Your task to perform on an android device: Open Maps and search for coffee Image 0: 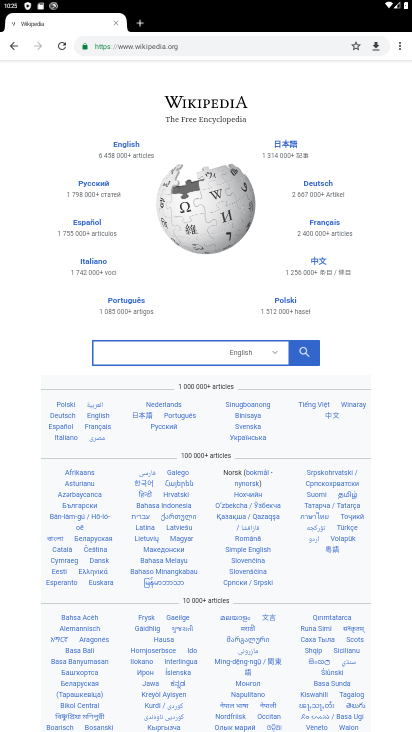
Step 0: press home button
Your task to perform on an android device: Open Maps and search for coffee Image 1: 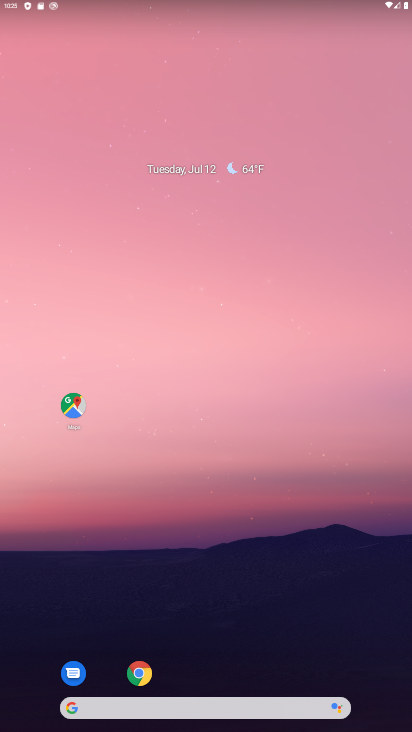
Step 1: drag from (261, 639) to (191, 82)
Your task to perform on an android device: Open Maps and search for coffee Image 2: 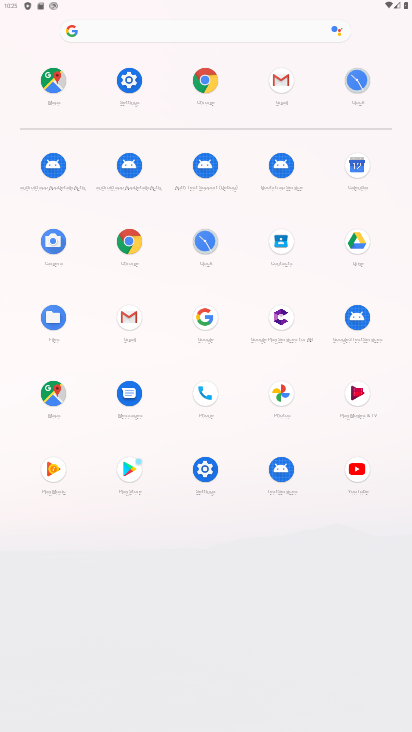
Step 2: click (55, 81)
Your task to perform on an android device: Open Maps and search for coffee Image 3: 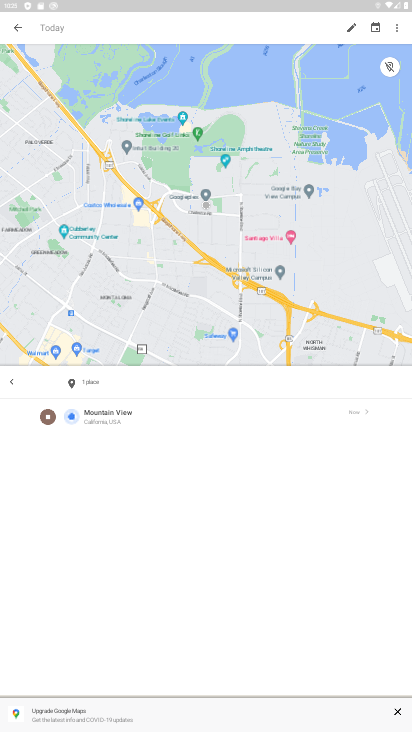
Step 3: click (19, 19)
Your task to perform on an android device: Open Maps and search for coffee Image 4: 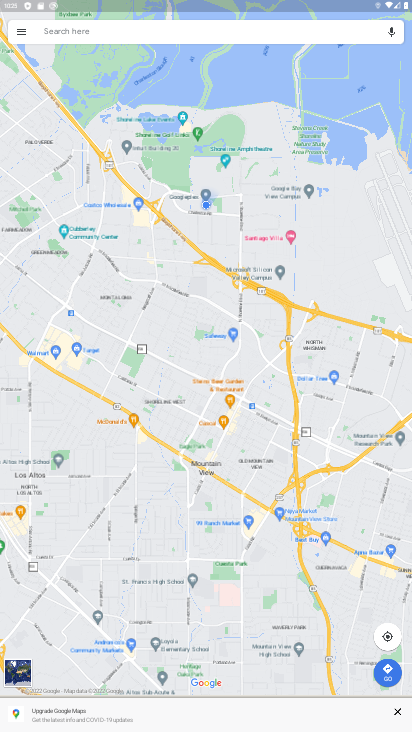
Step 4: click (132, 33)
Your task to perform on an android device: Open Maps and search for coffee Image 5: 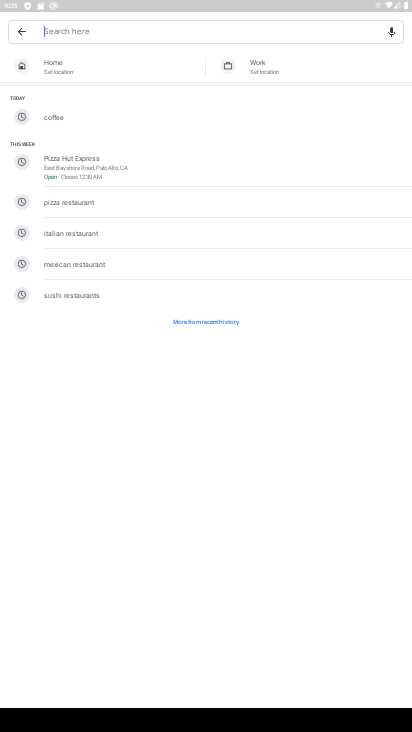
Step 5: click (55, 116)
Your task to perform on an android device: Open Maps and search for coffee Image 6: 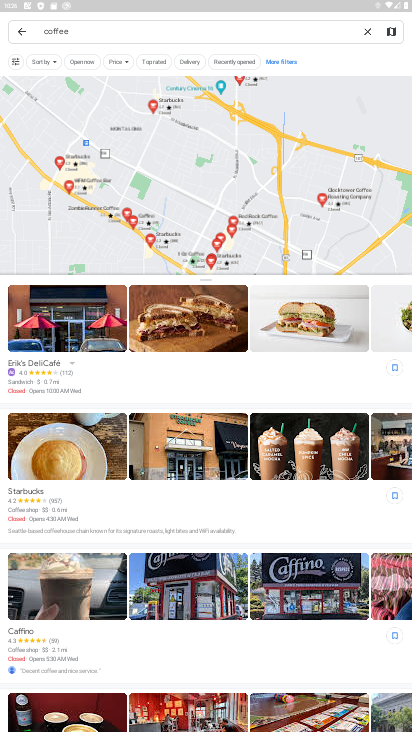
Step 6: task complete